Your task to perform on an android device: Open battery settings Image 0: 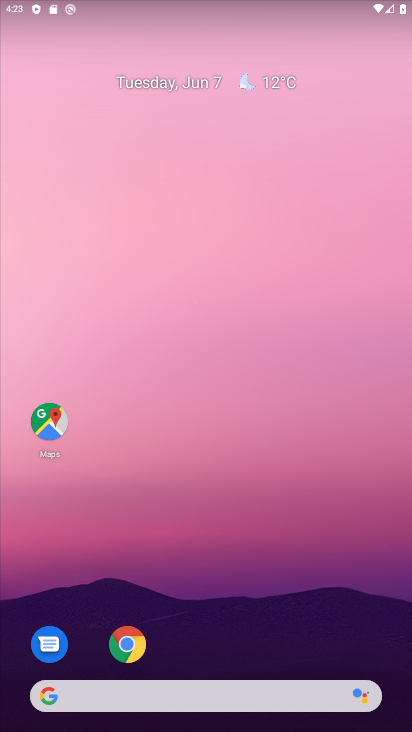
Step 0: press home button
Your task to perform on an android device: Open battery settings Image 1: 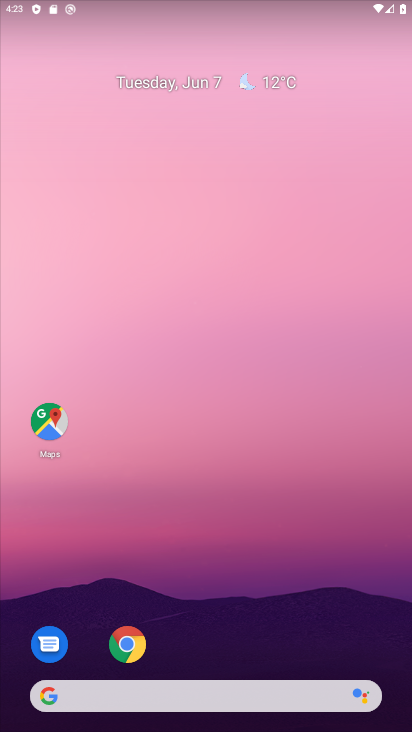
Step 1: drag from (280, 567) to (364, 102)
Your task to perform on an android device: Open battery settings Image 2: 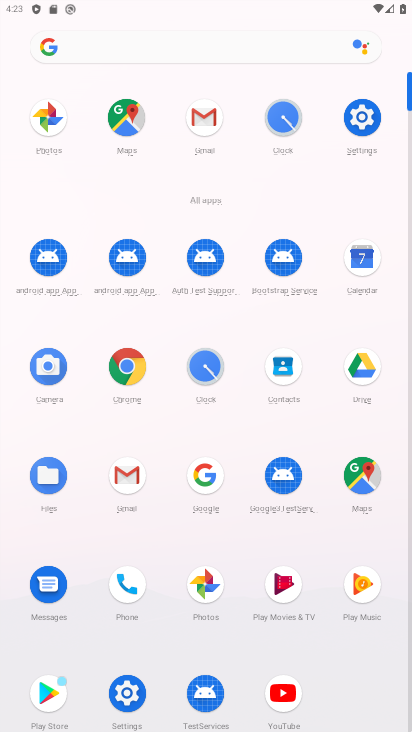
Step 2: click (348, 116)
Your task to perform on an android device: Open battery settings Image 3: 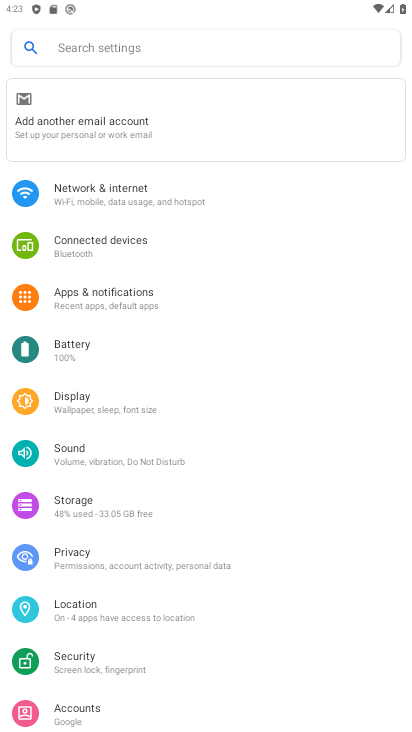
Step 3: click (101, 348)
Your task to perform on an android device: Open battery settings Image 4: 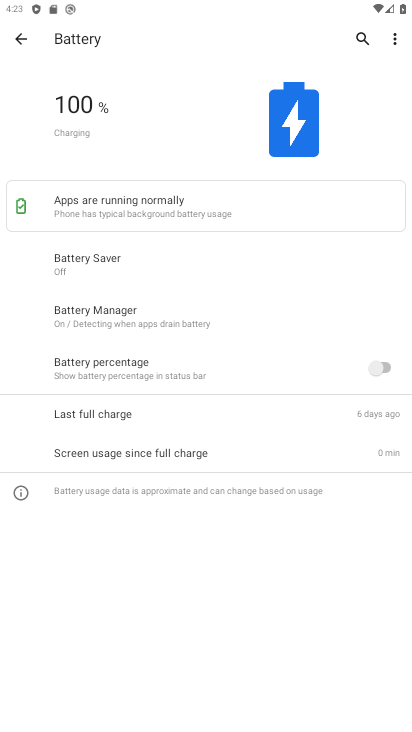
Step 4: task complete